Your task to perform on an android device: toggle data saver in the chrome app Image 0: 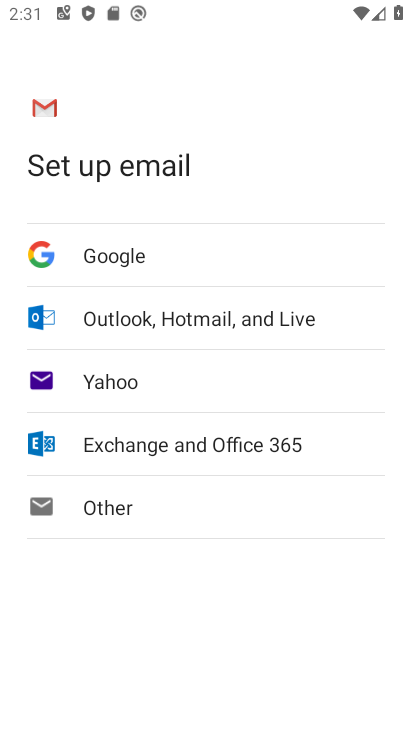
Step 0: press back button
Your task to perform on an android device: toggle data saver in the chrome app Image 1: 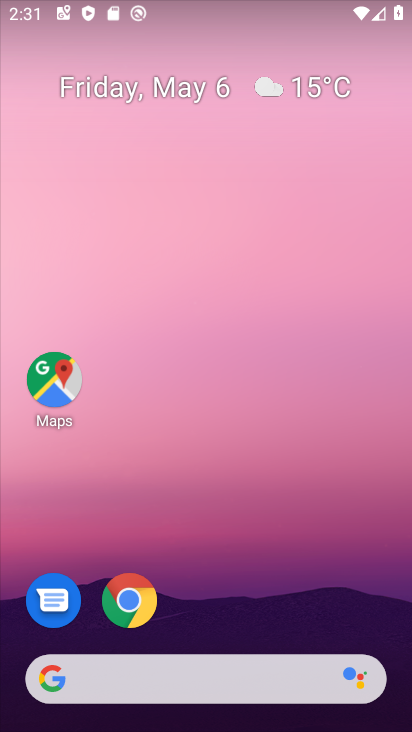
Step 1: drag from (254, 558) to (242, 0)
Your task to perform on an android device: toggle data saver in the chrome app Image 2: 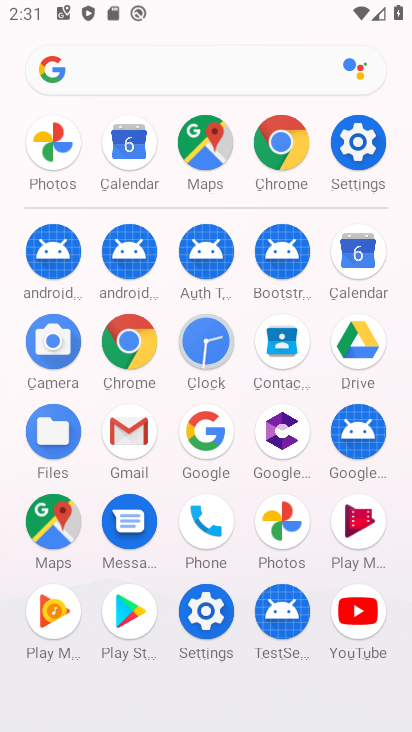
Step 2: drag from (13, 572) to (10, 215)
Your task to perform on an android device: toggle data saver in the chrome app Image 3: 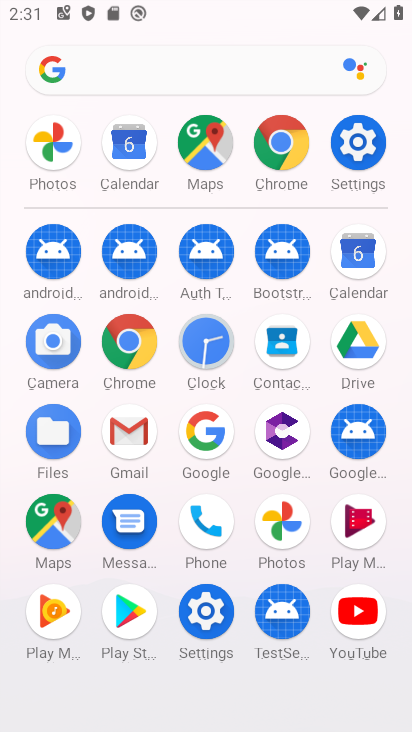
Step 3: click (127, 337)
Your task to perform on an android device: toggle data saver in the chrome app Image 4: 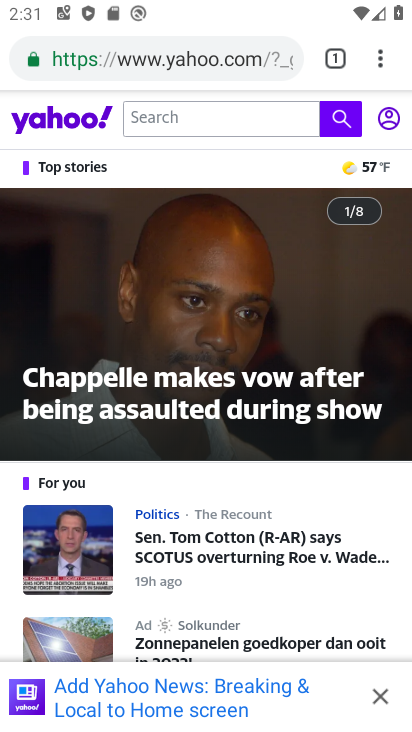
Step 4: drag from (378, 55) to (176, 632)
Your task to perform on an android device: toggle data saver in the chrome app Image 5: 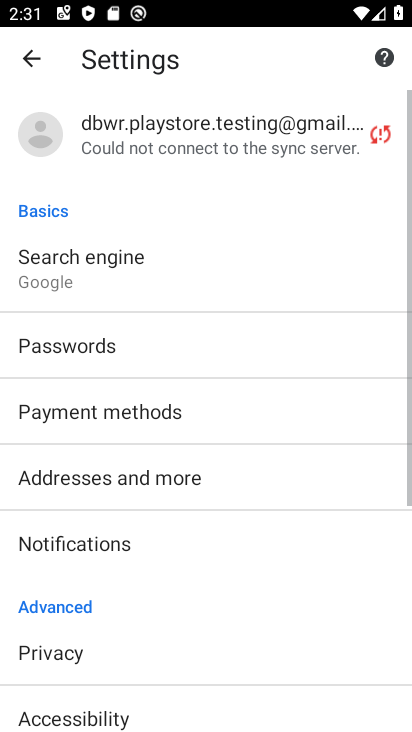
Step 5: drag from (221, 625) to (239, 192)
Your task to perform on an android device: toggle data saver in the chrome app Image 6: 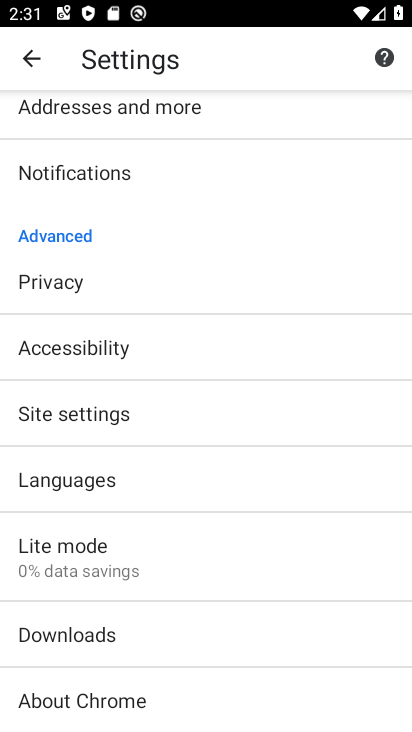
Step 6: click (102, 559)
Your task to perform on an android device: toggle data saver in the chrome app Image 7: 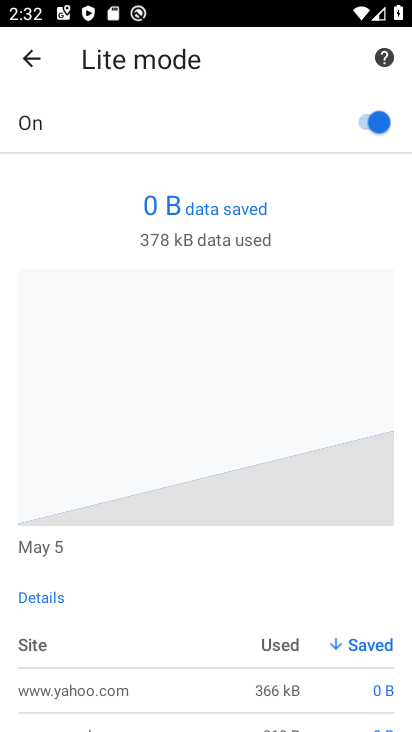
Step 7: click (380, 125)
Your task to perform on an android device: toggle data saver in the chrome app Image 8: 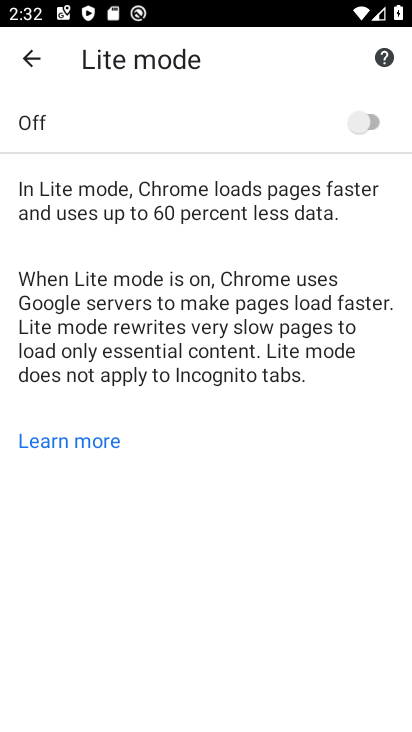
Step 8: task complete